Your task to perform on an android device: turn on bluetooth scan Image 0: 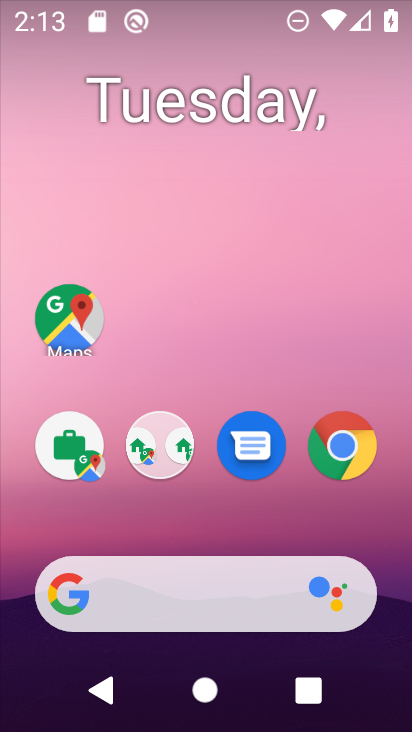
Step 0: click (212, 601)
Your task to perform on an android device: turn on bluetooth scan Image 1: 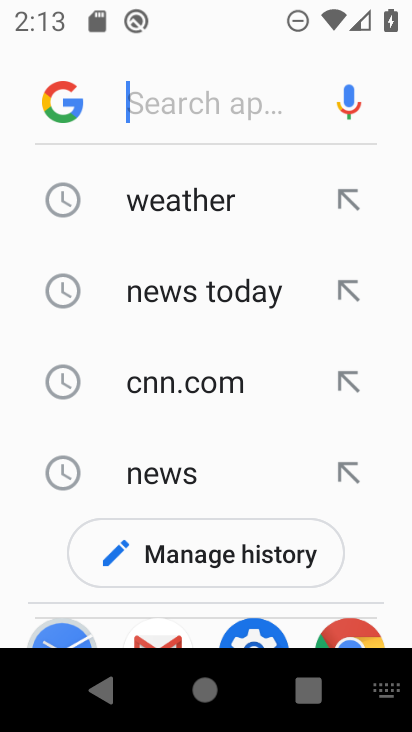
Step 1: click (62, 105)
Your task to perform on an android device: turn on bluetooth scan Image 2: 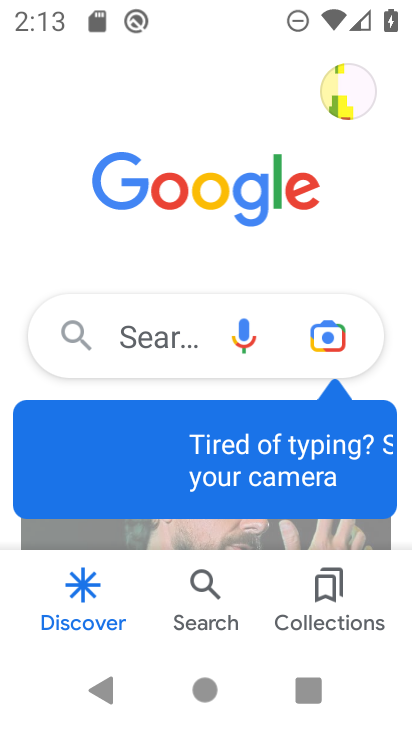
Step 2: task complete